Your task to perform on an android device: toggle wifi Image 0: 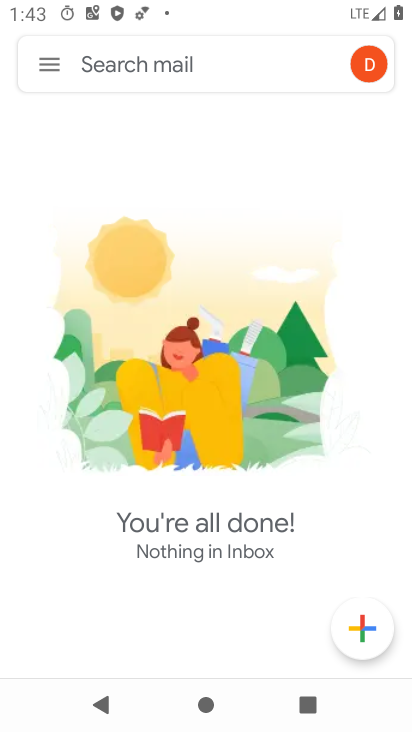
Step 0: drag from (202, 13) to (211, 478)
Your task to perform on an android device: toggle wifi Image 1: 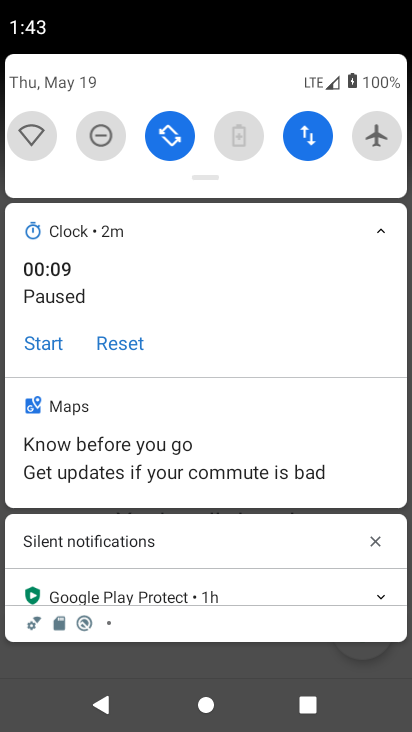
Step 1: click (26, 147)
Your task to perform on an android device: toggle wifi Image 2: 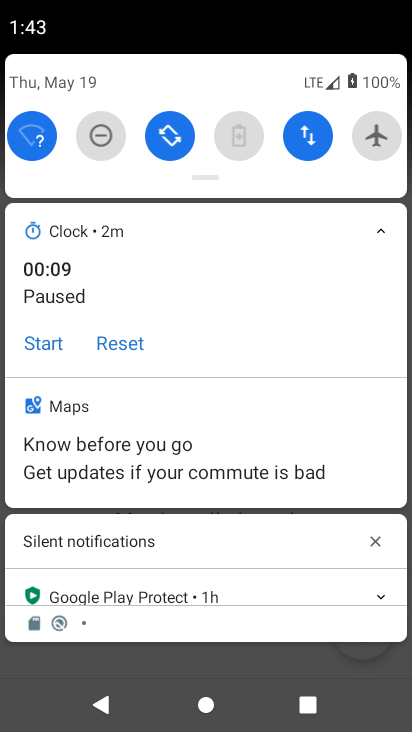
Step 2: click (26, 147)
Your task to perform on an android device: toggle wifi Image 3: 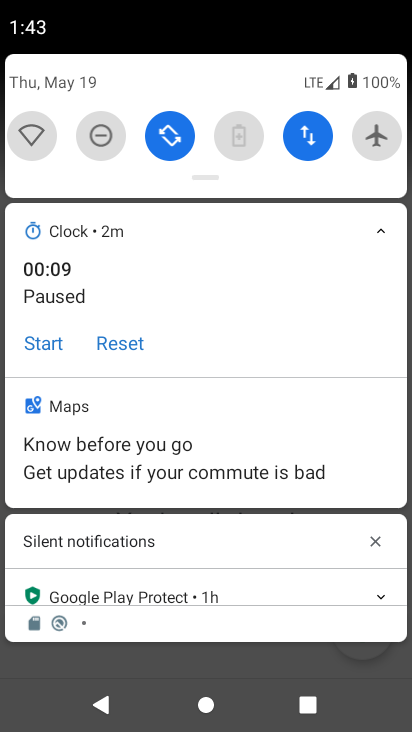
Step 3: click (26, 147)
Your task to perform on an android device: toggle wifi Image 4: 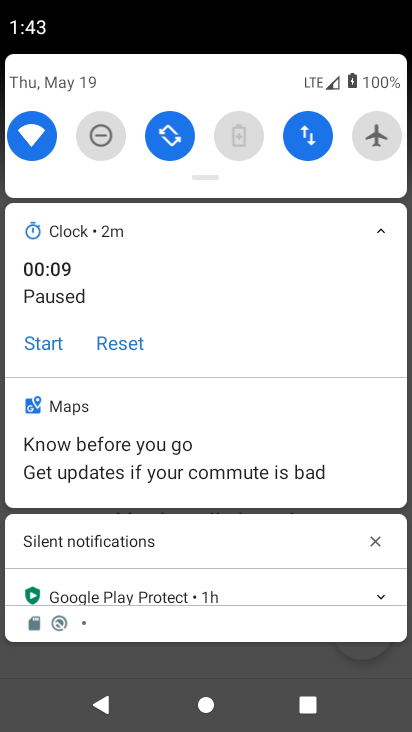
Step 4: task complete